Your task to perform on an android device: uninstall "YouTube Kids" Image 0: 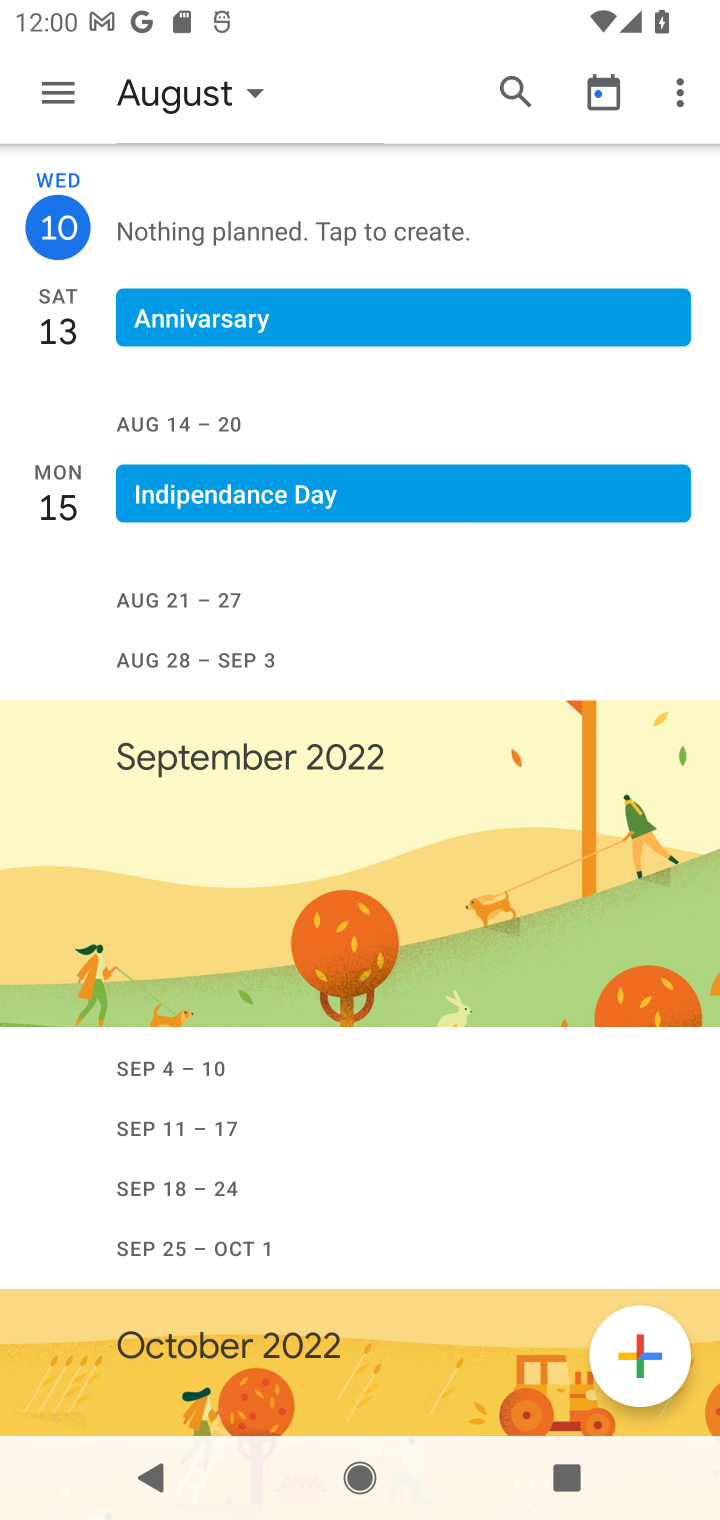
Step 0: press home button
Your task to perform on an android device: uninstall "YouTube Kids" Image 1: 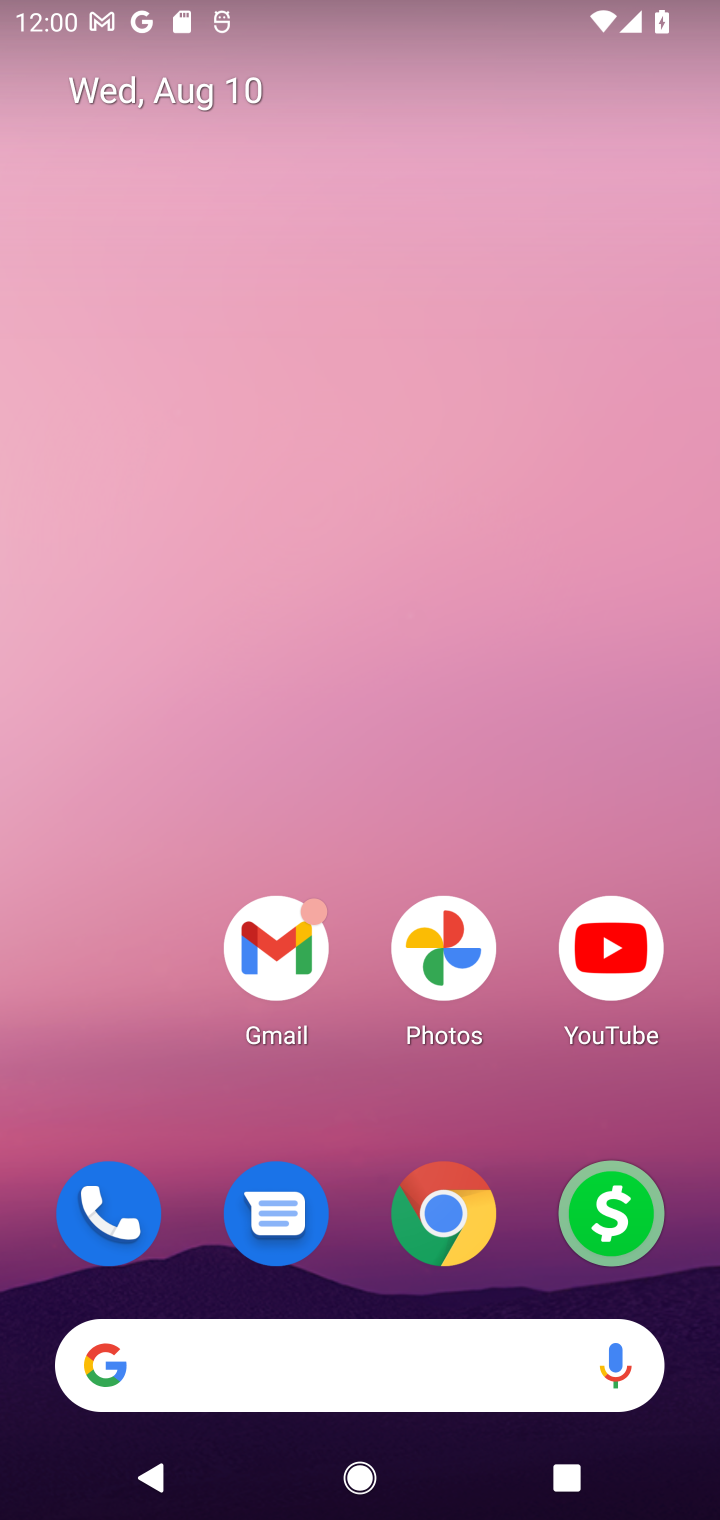
Step 1: drag from (312, 1356) to (364, 419)
Your task to perform on an android device: uninstall "YouTube Kids" Image 2: 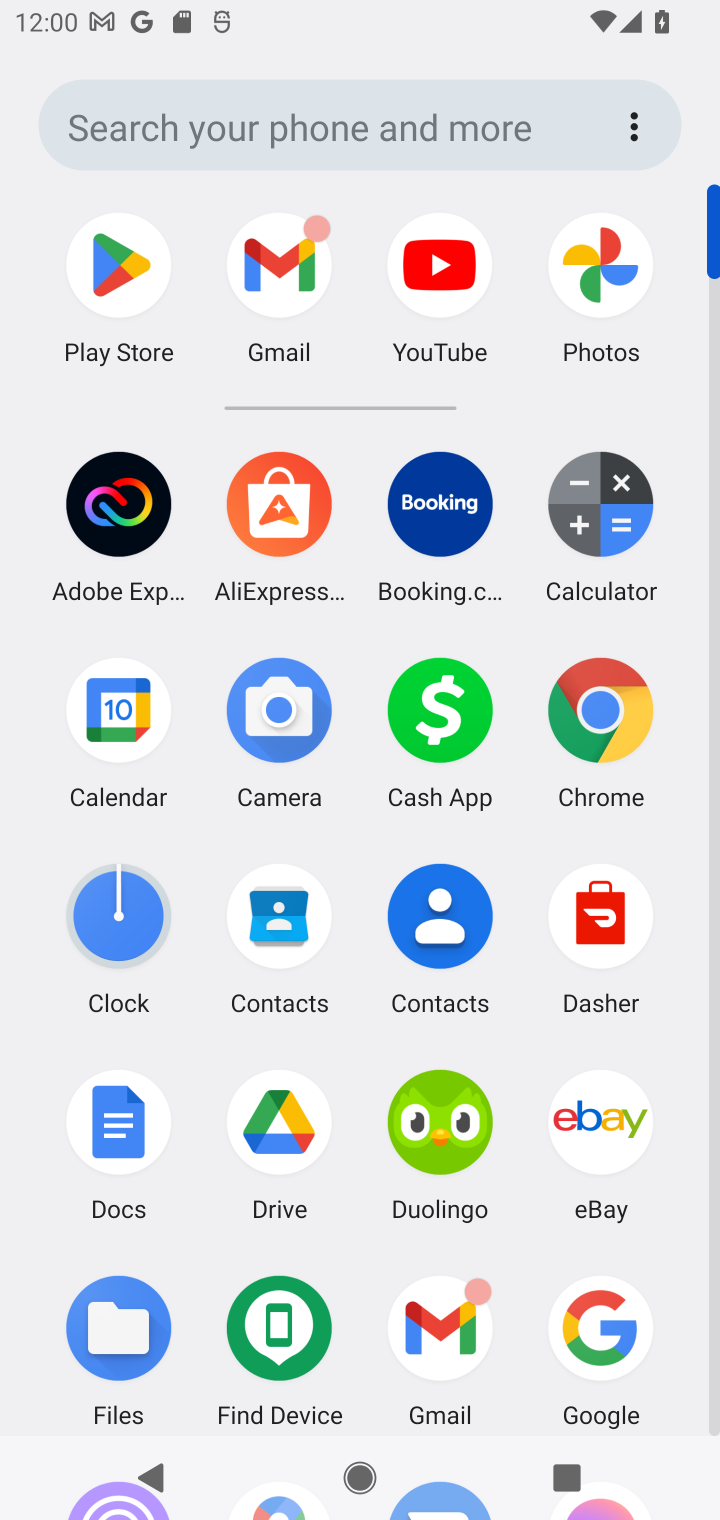
Step 2: click (124, 274)
Your task to perform on an android device: uninstall "YouTube Kids" Image 3: 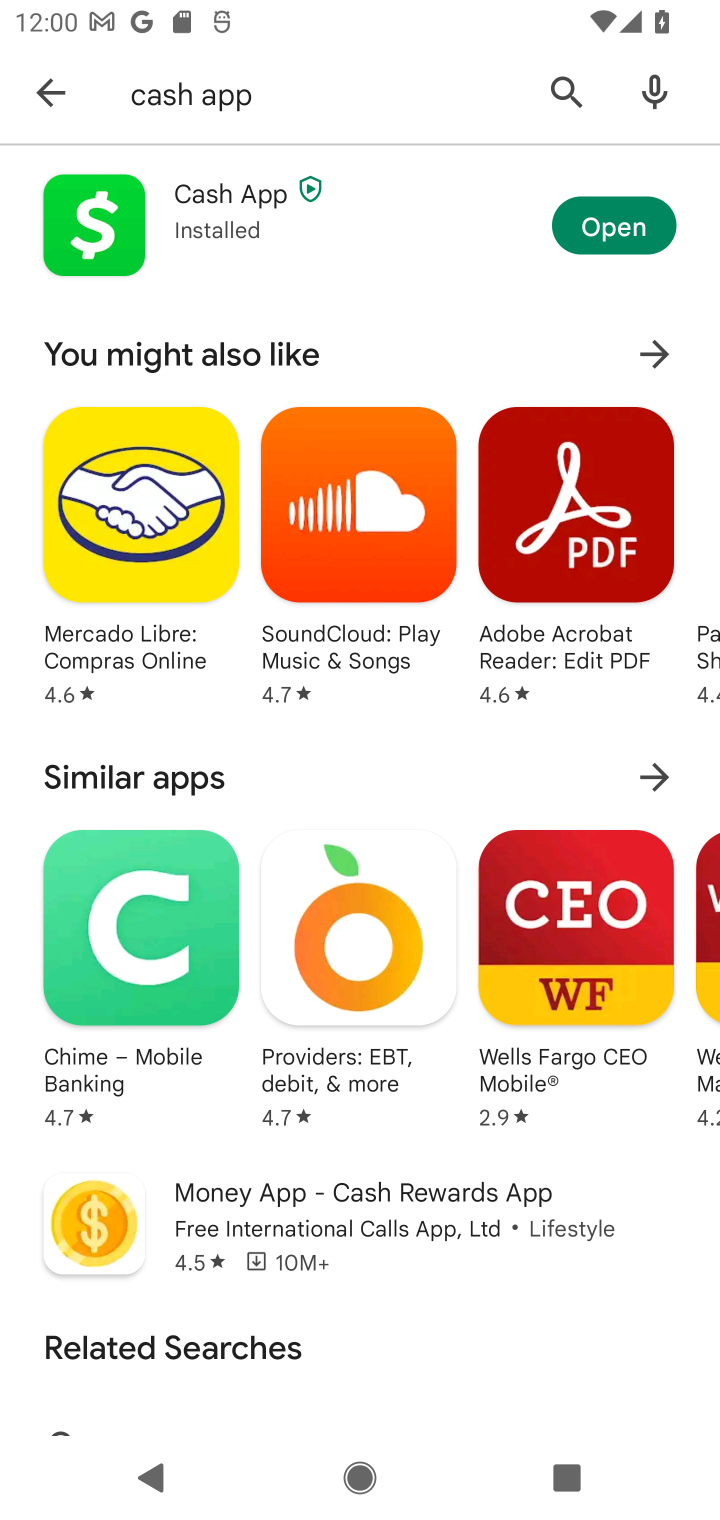
Step 3: press back button
Your task to perform on an android device: uninstall "YouTube Kids" Image 4: 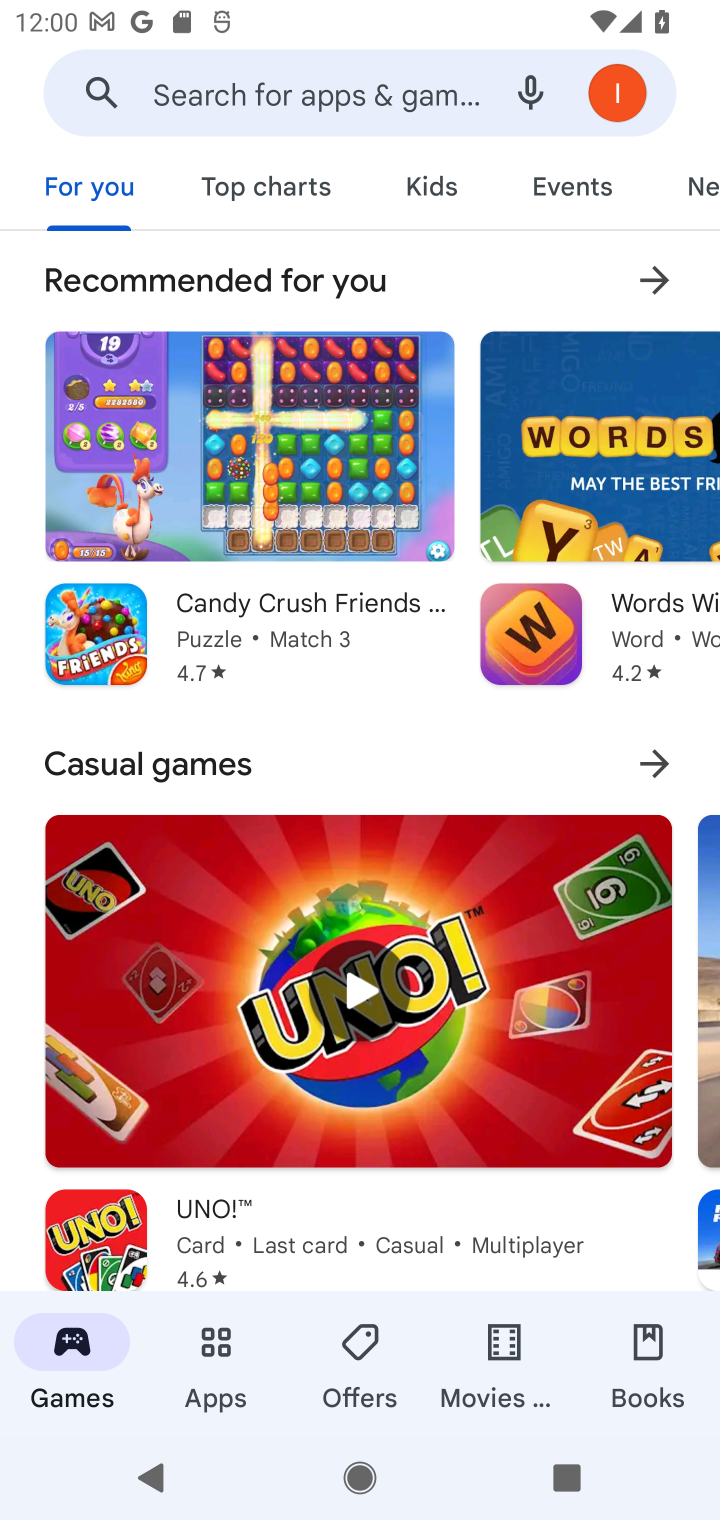
Step 4: click (331, 99)
Your task to perform on an android device: uninstall "YouTube Kids" Image 5: 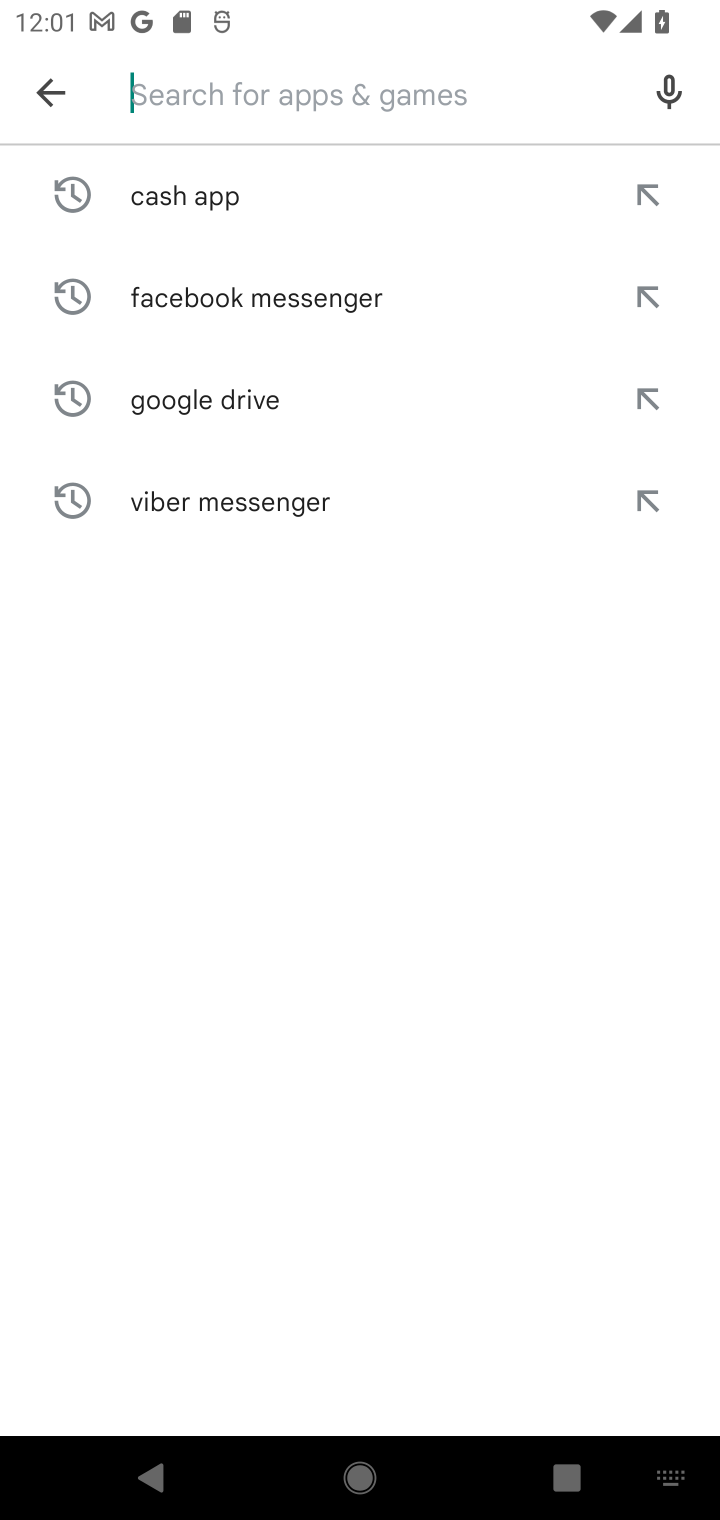
Step 5: type "YouTube Kids"
Your task to perform on an android device: uninstall "YouTube Kids" Image 6: 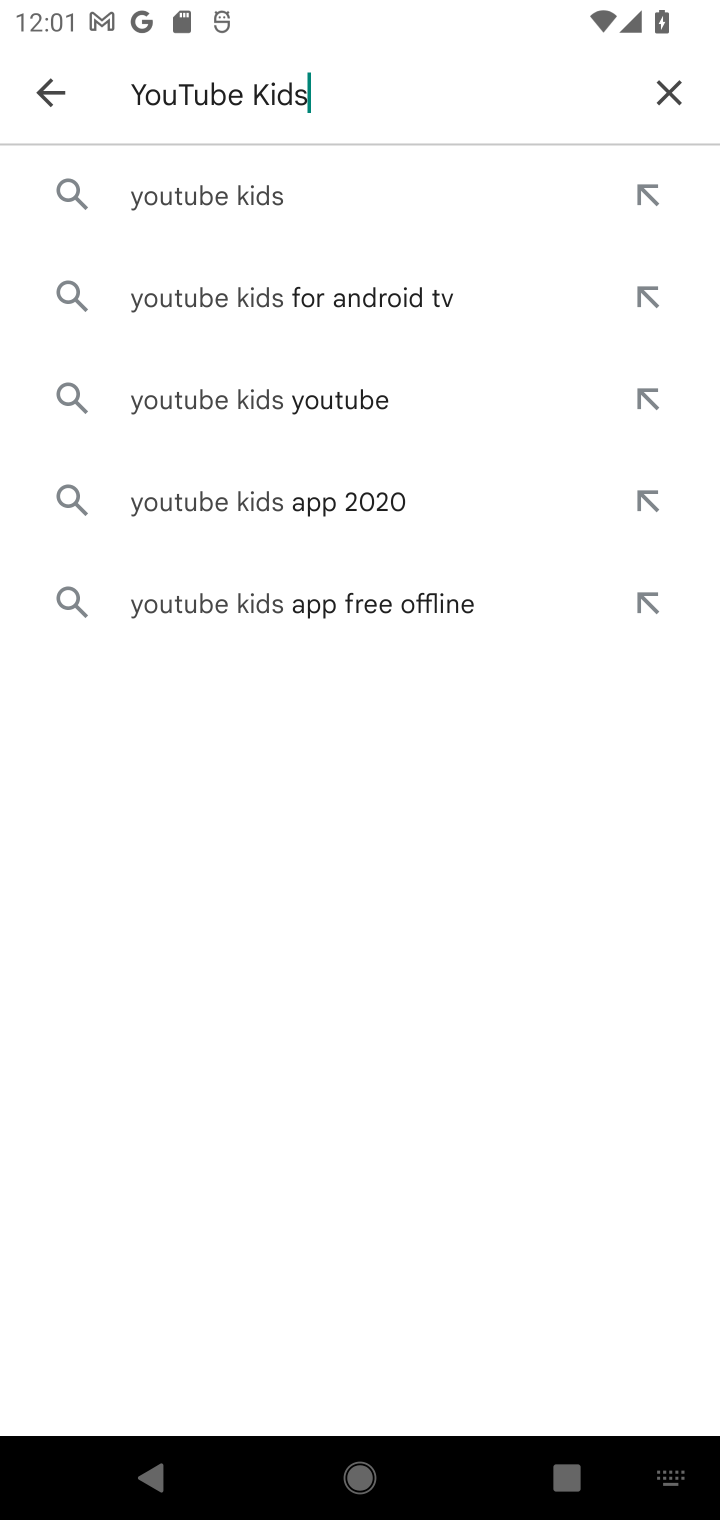
Step 6: click (198, 193)
Your task to perform on an android device: uninstall "YouTube Kids" Image 7: 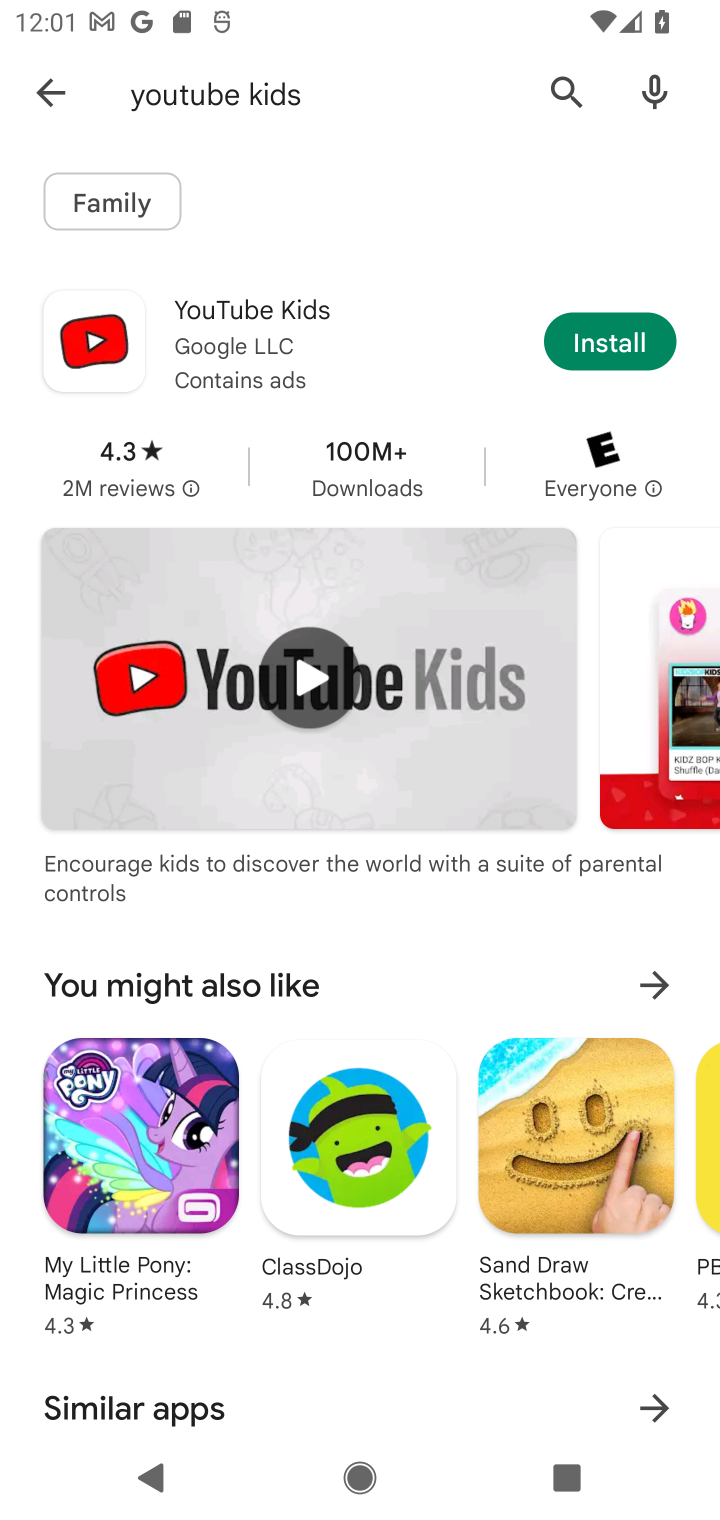
Step 7: task complete